Your task to perform on an android device: Go to wifi settings Image 0: 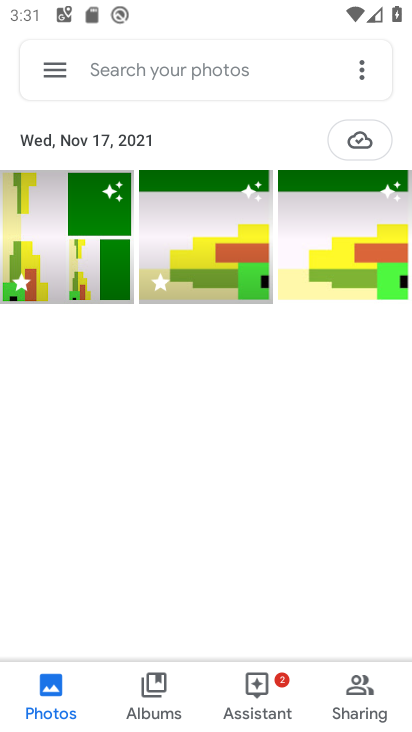
Step 0: press home button
Your task to perform on an android device: Go to wifi settings Image 1: 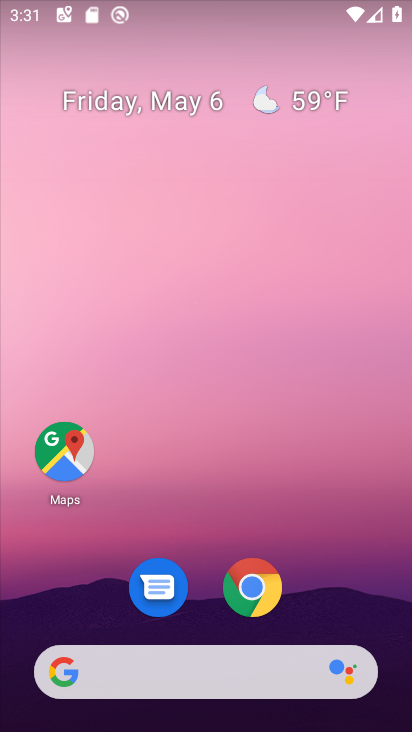
Step 1: drag from (242, 507) to (280, 23)
Your task to perform on an android device: Go to wifi settings Image 2: 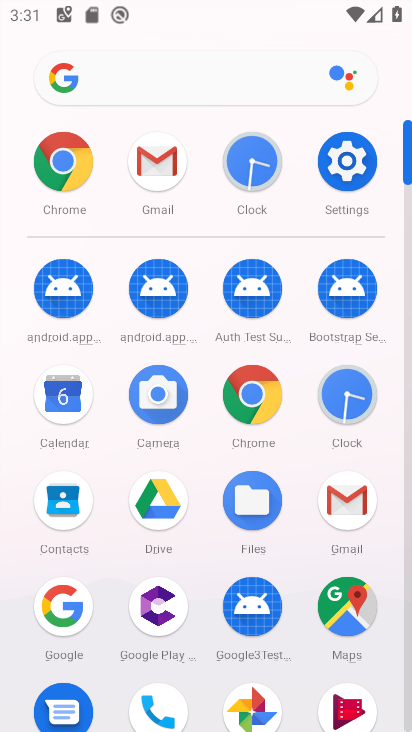
Step 2: click (347, 160)
Your task to perform on an android device: Go to wifi settings Image 3: 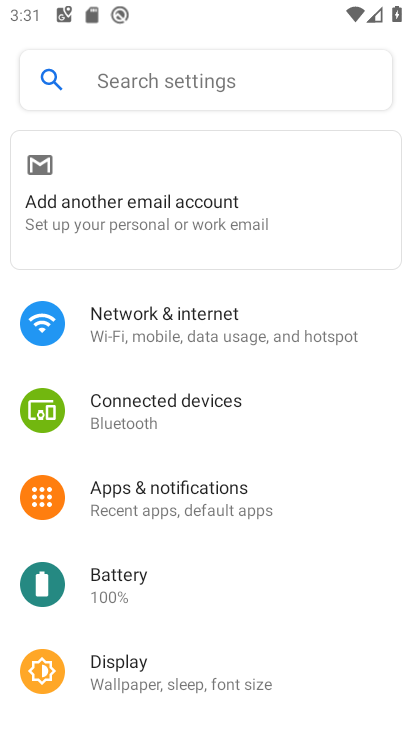
Step 3: click (209, 330)
Your task to perform on an android device: Go to wifi settings Image 4: 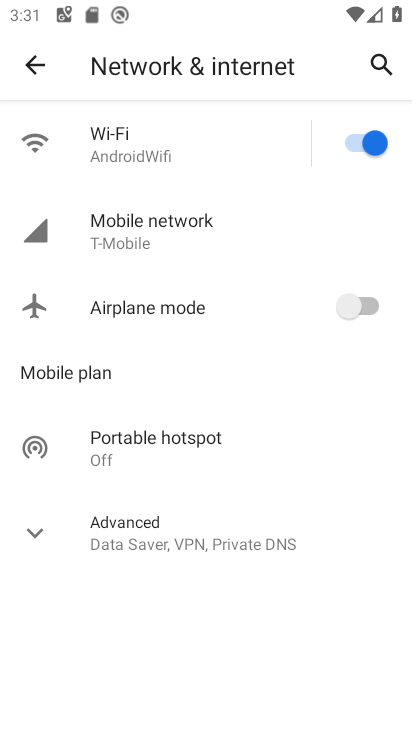
Step 4: click (169, 150)
Your task to perform on an android device: Go to wifi settings Image 5: 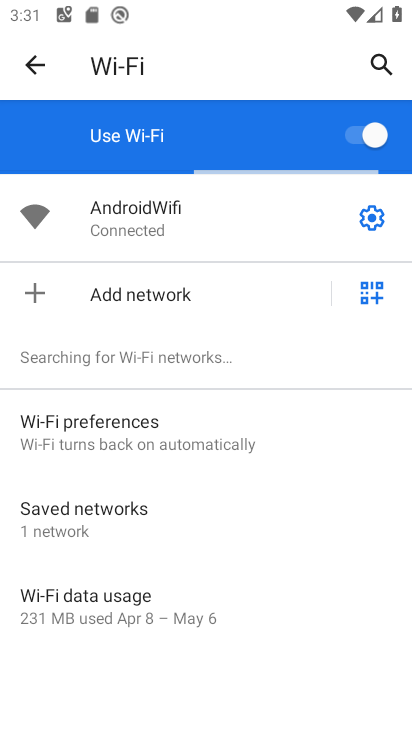
Step 5: task complete